Your task to perform on an android device: open wifi settings Image 0: 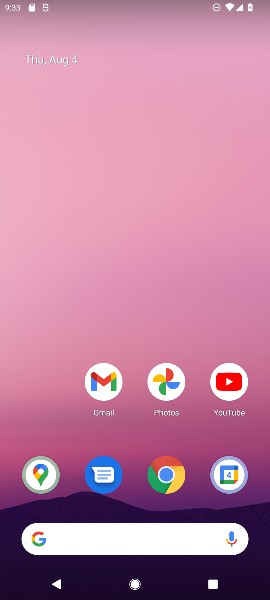
Step 0: drag from (97, 539) to (109, 239)
Your task to perform on an android device: open wifi settings Image 1: 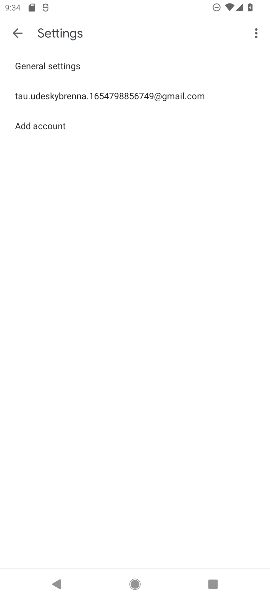
Step 1: press home button
Your task to perform on an android device: open wifi settings Image 2: 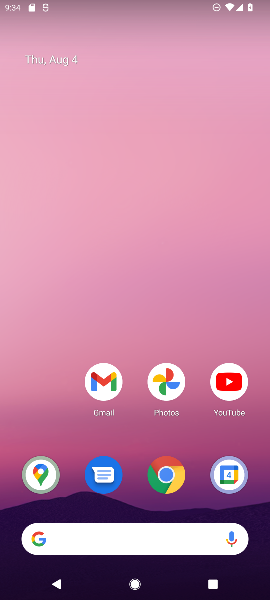
Step 2: drag from (131, 531) to (153, 308)
Your task to perform on an android device: open wifi settings Image 3: 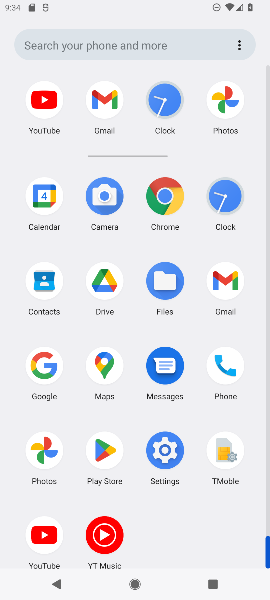
Step 3: click (165, 444)
Your task to perform on an android device: open wifi settings Image 4: 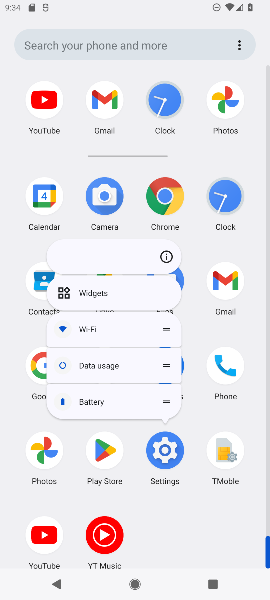
Step 4: click (165, 252)
Your task to perform on an android device: open wifi settings Image 5: 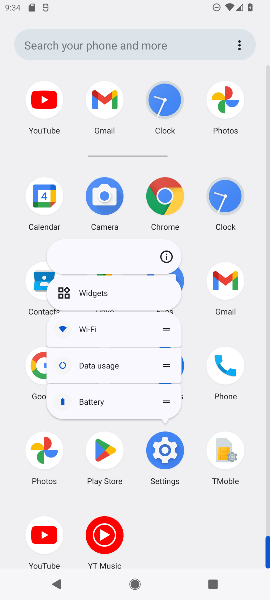
Step 5: click (165, 252)
Your task to perform on an android device: open wifi settings Image 6: 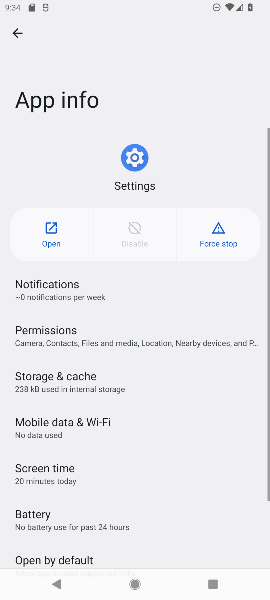
Step 6: click (43, 239)
Your task to perform on an android device: open wifi settings Image 7: 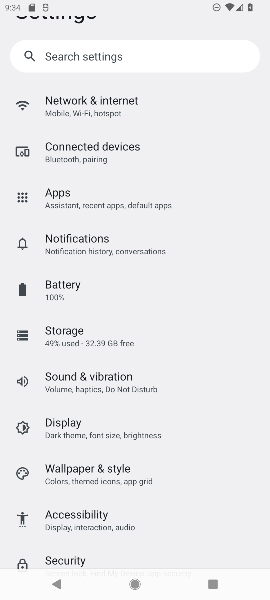
Step 7: drag from (158, 139) to (122, 599)
Your task to perform on an android device: open wifi settings Image 8: 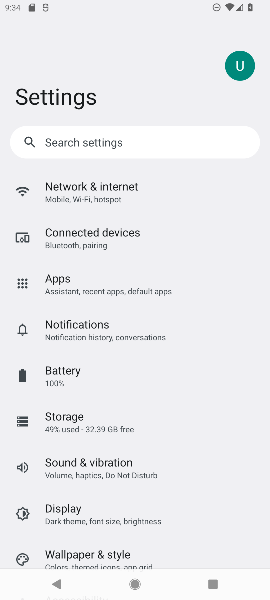
Step 8: click (126, 187)
Your task to perform on an android device: open wifi settings Image 9: 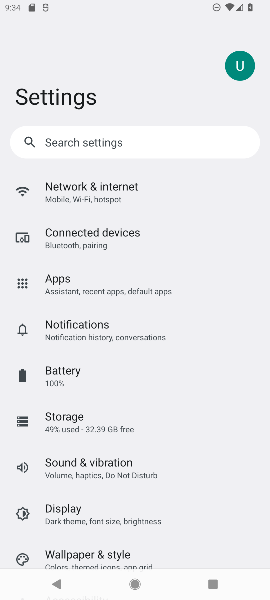
Step 9: click (126, 187)
Your task to perform on an android device: open wifi settings Image 10: 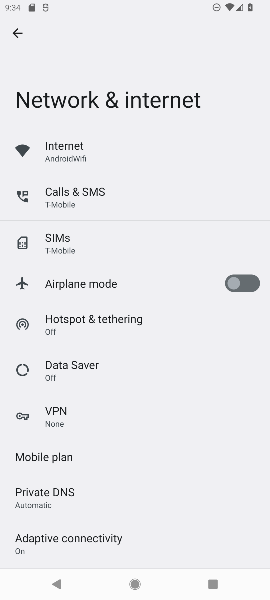
Step 10: click (100, 150)
Your task to perform on an android device: open wifi settings Image 11: 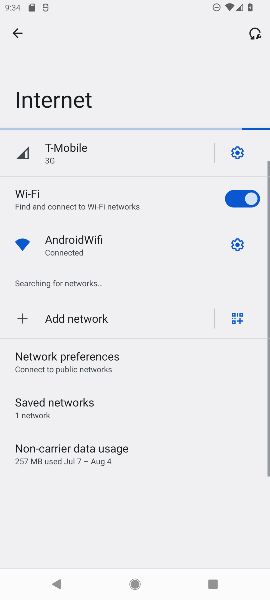
Step 11: click (239, 156)
Your task to perform on an android device: open wifi settings Image 12: 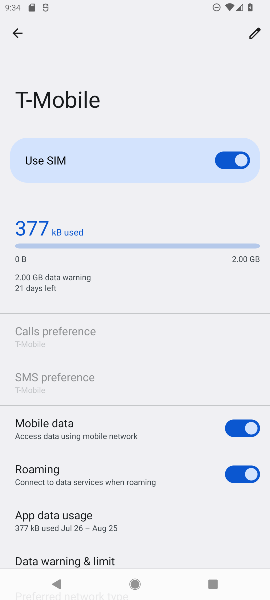
Step 12: press back button
Your task to perform on an android device: open wifi settings Image 13: 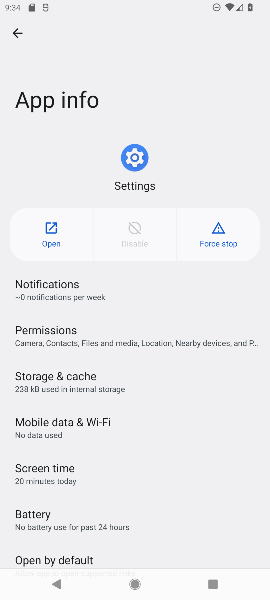
Step 13: click (42, 237)
Your task to perform on an android device: open wifi settings Image 14: 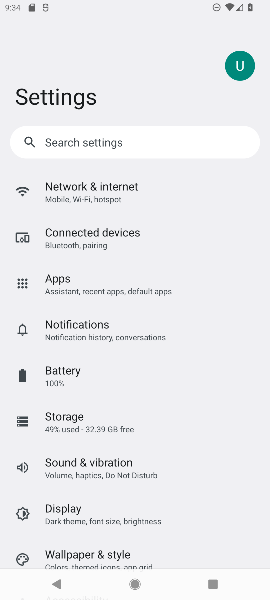
Step 14: click (133, 198)
Your task to perform on an android device: open wifi settings Image 15: 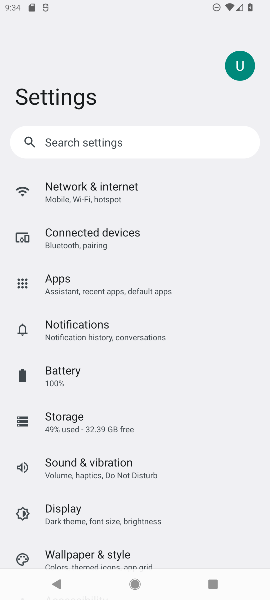
Step 15: click (133, 198)
Your task to perform on an android device: open wifi settings Image 16: 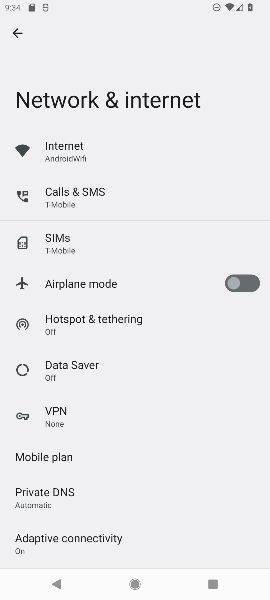
Step 16: click (124, 163)
Your task to perform on an android device: open wifi settings Image 17: 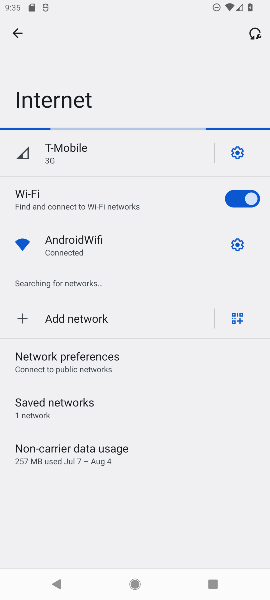
Step 17: click (241, 243)
Your task to perform on an android device: open wifi settings Image 18: 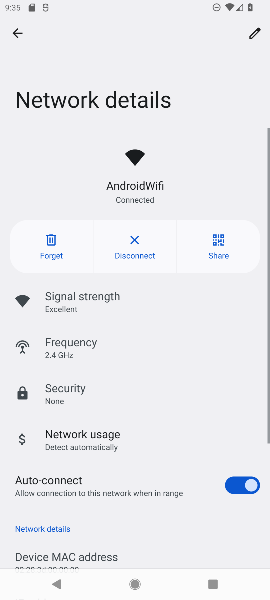
Step 18: task complete